Your task to perform on an android device: turn off smart reply in the gmail app Image 0: 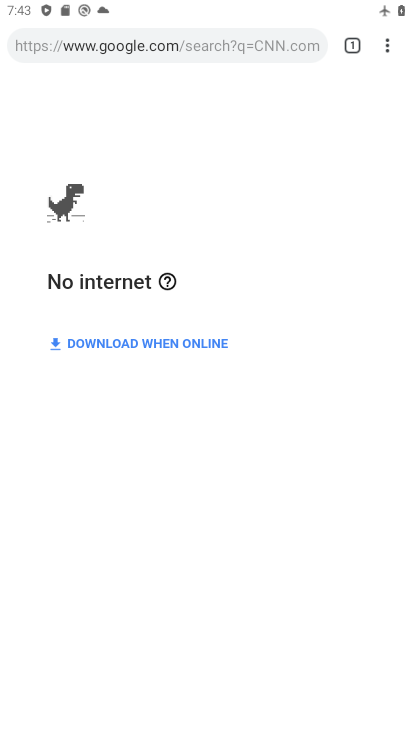
Step 0: press home button
Your task to perform on an android device: turn off smart reply in the gmail app Image 1: 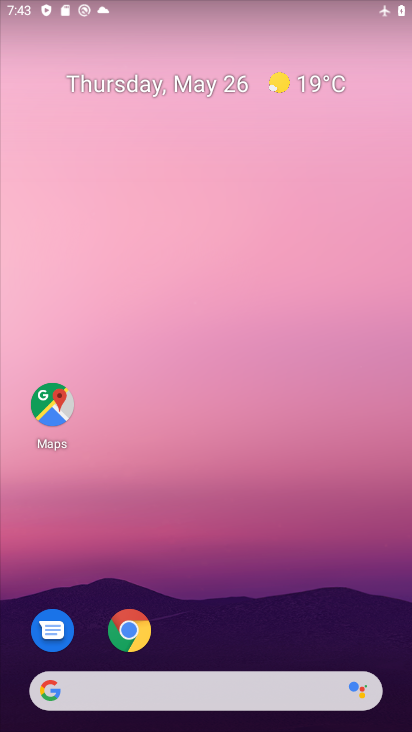
Step 1: drag from (255, 624) to (191, 98)
Your task to perform on an android device: turn off smart reply in the gmail app Image 2: 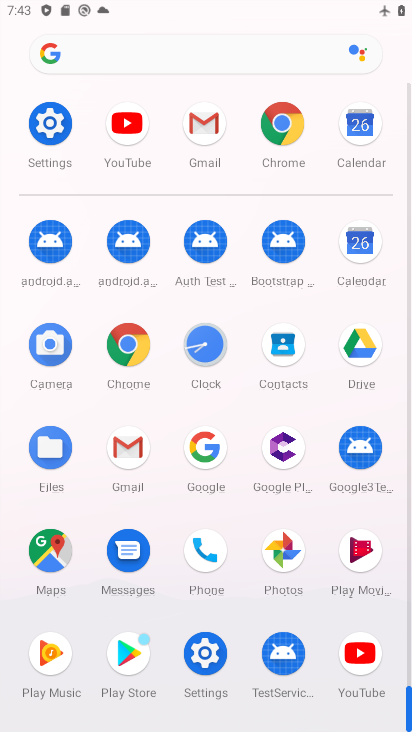
Step 2: click (203, 124)
Your task to perform on an android device: turn off smart reply in the gmail app Image 3: 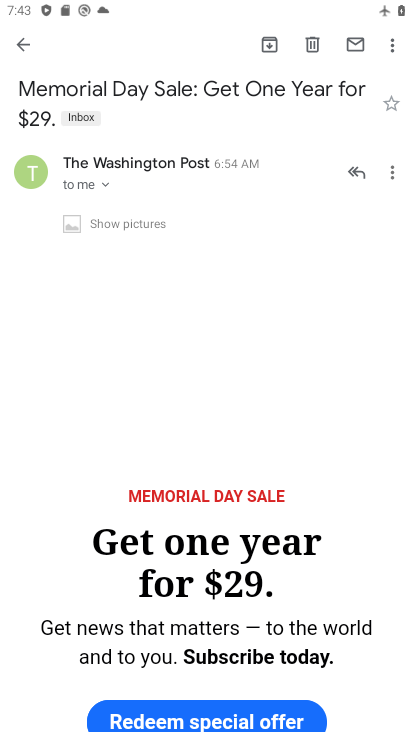
Step 3: press back button
Your task to perform on an android device: turn off smart reply in the gmail app Image 4: 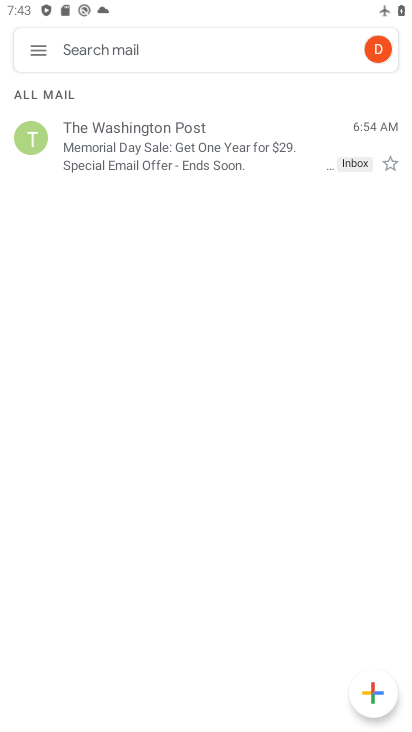
Step 4: click (39, 51)
Your task to perform on an android device: turn off smart reply in the gmail app Image 5: 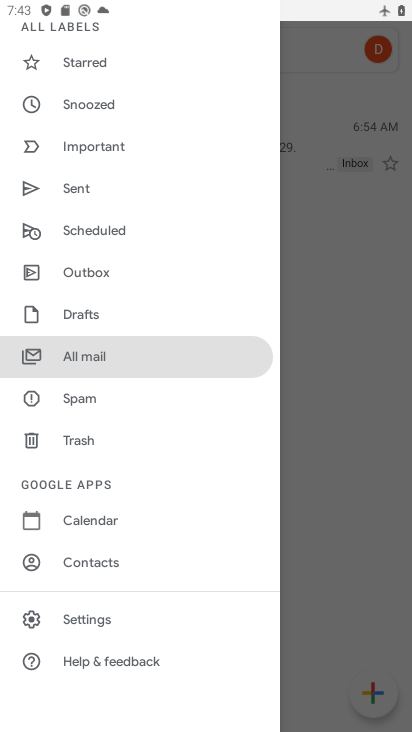
Step 5: click (103, 621)
Your task to perform on an android device: turn off smart reply in the gmail app Image 6: 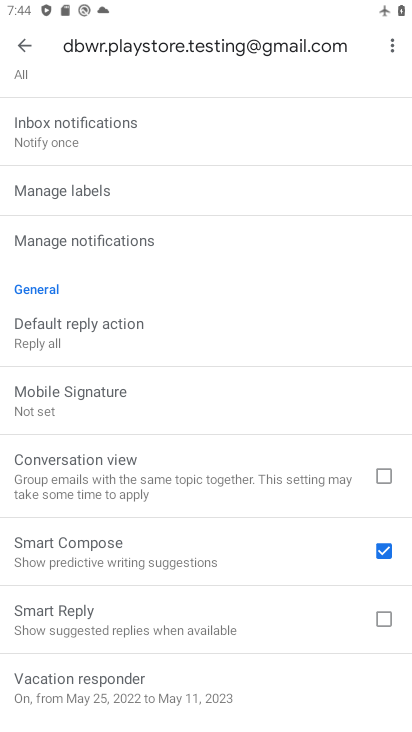
Step 6: task complete